Your task to perform on an android device: Go to Wikipedia Image 0: 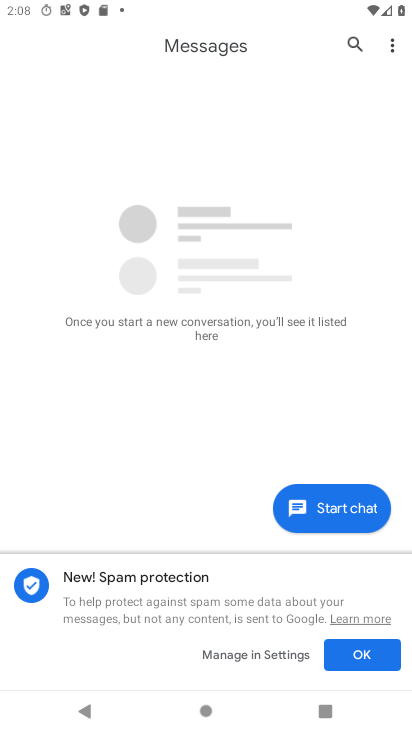
Step 0: press home button
Your task to perform on an android device: Go to Wikipedia Image 1: 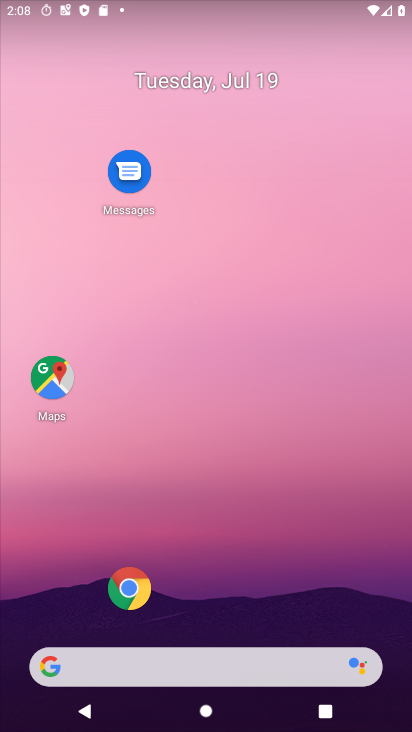
Step 1: click (142, 660)
Your task to perform on an android device: Go to Wikipedia Image 2: 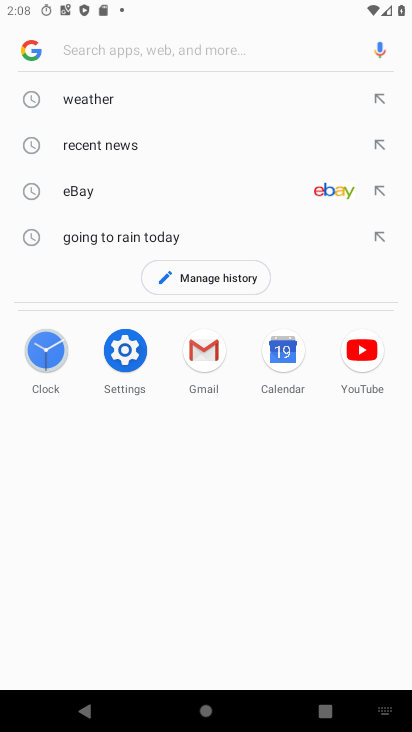
Step 2: type "Wikipedia"
Your task to perform on an android device: Go to Wikipedia Image 3: 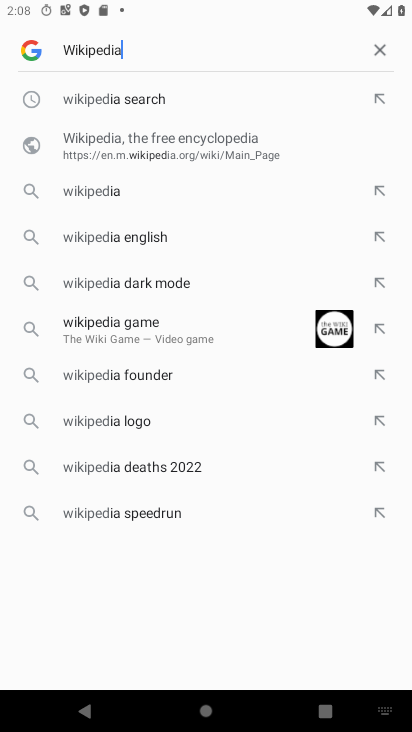
Step 3: type ""
Your task to perform on an android device: Go to Wikipedia Image 4: 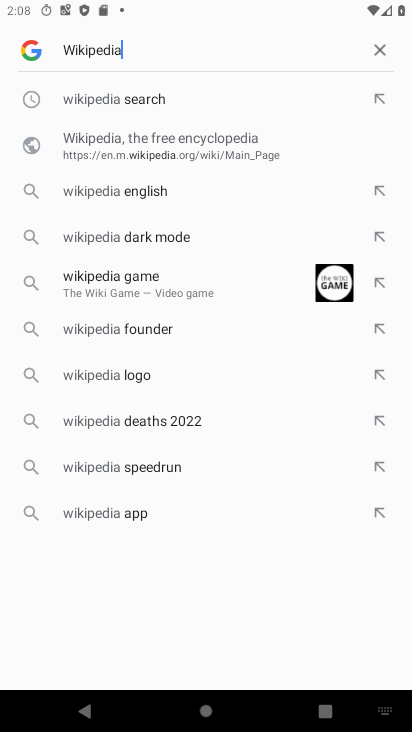
Step 4: task complete